Your task to perform on an android device: Search for "duracell triple a" on newegg.com, select the first entry, and add it to the cart. Image 0: 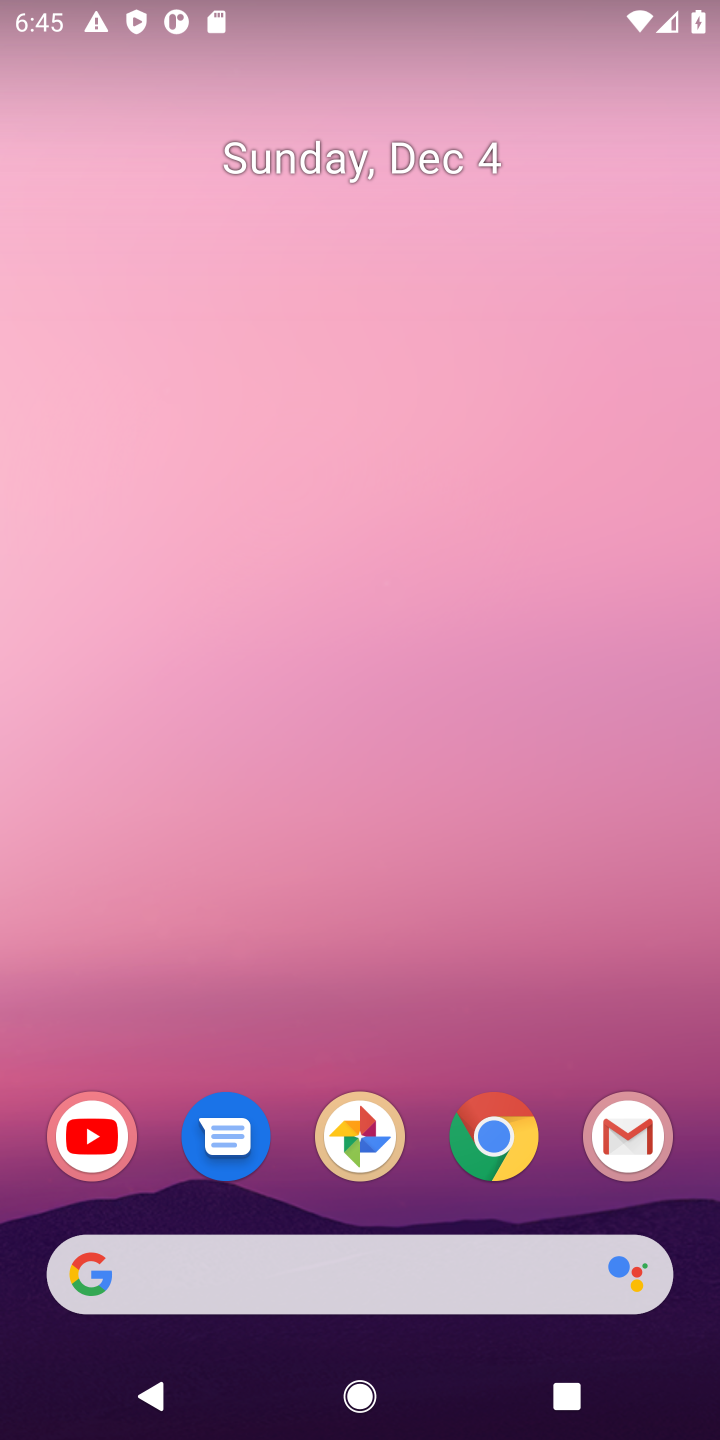
Step 0: click (485, 1143)
Your task to perform on an android device: Search for "duracell triple a" on newegg.com, select the first entry, and add it to the cart. Image 1: 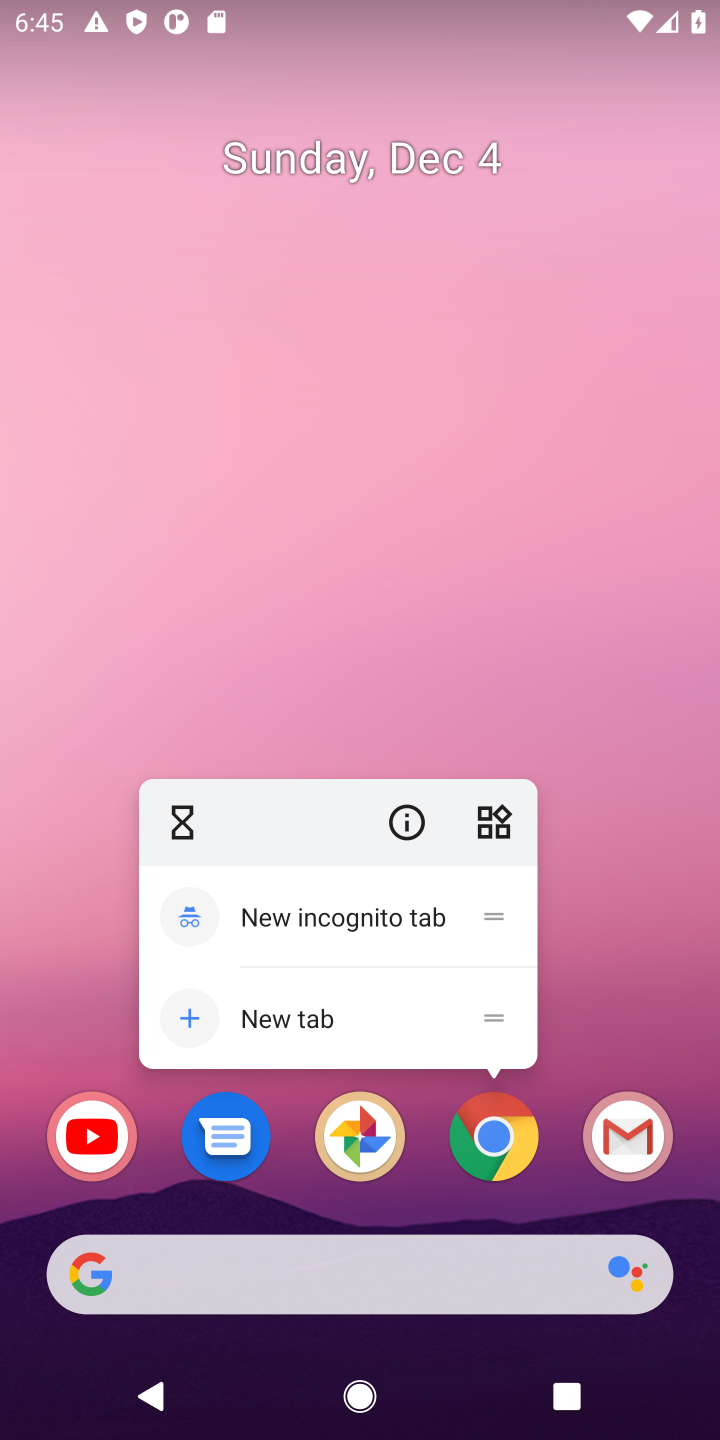
Step 1: click (485, 1143)
Your task to perform on an android device: Search for "duracell triple a" on newegg.com, select the first entry, and add it to the cart. Image 2: 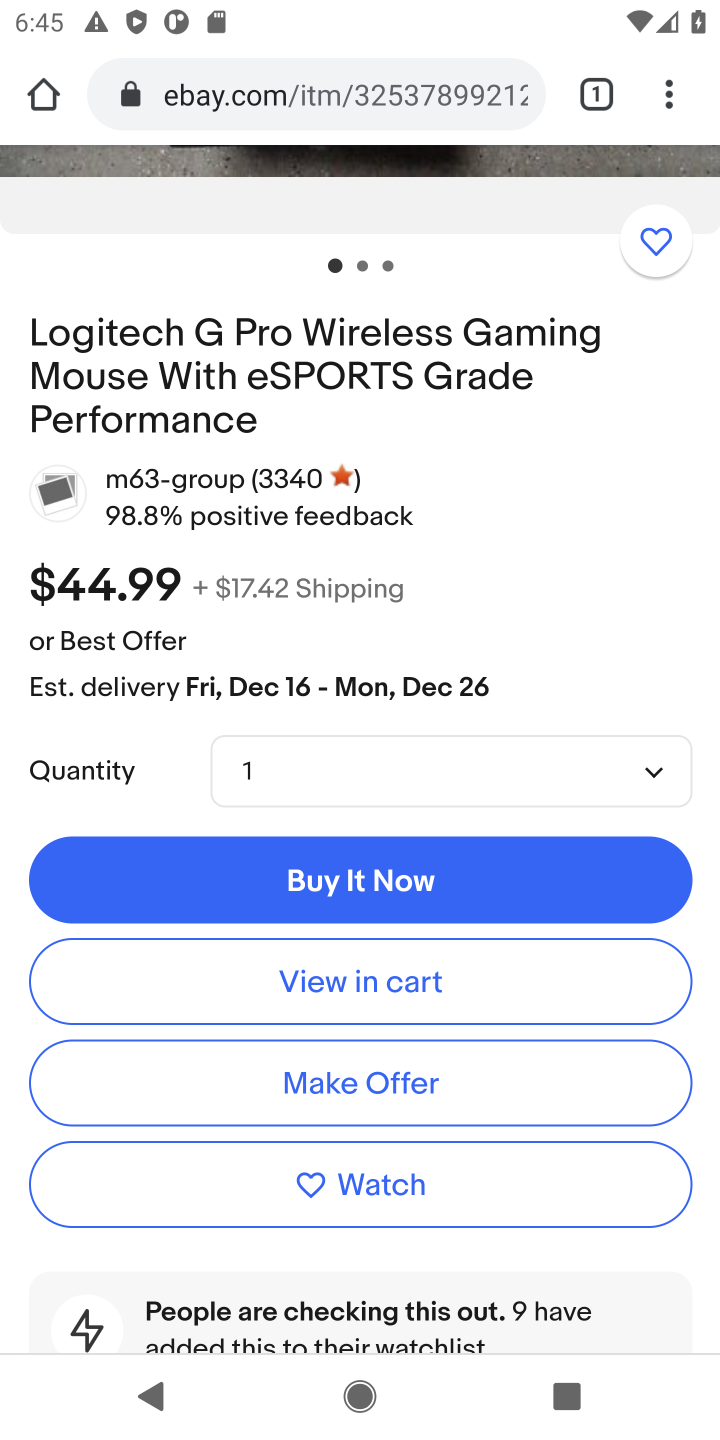
Step 2: click (292, 97)
Your task to perform on an android device: Search for "duracell triple a" on newegg.com, select the first entry, and add it to the cart. Image 3: 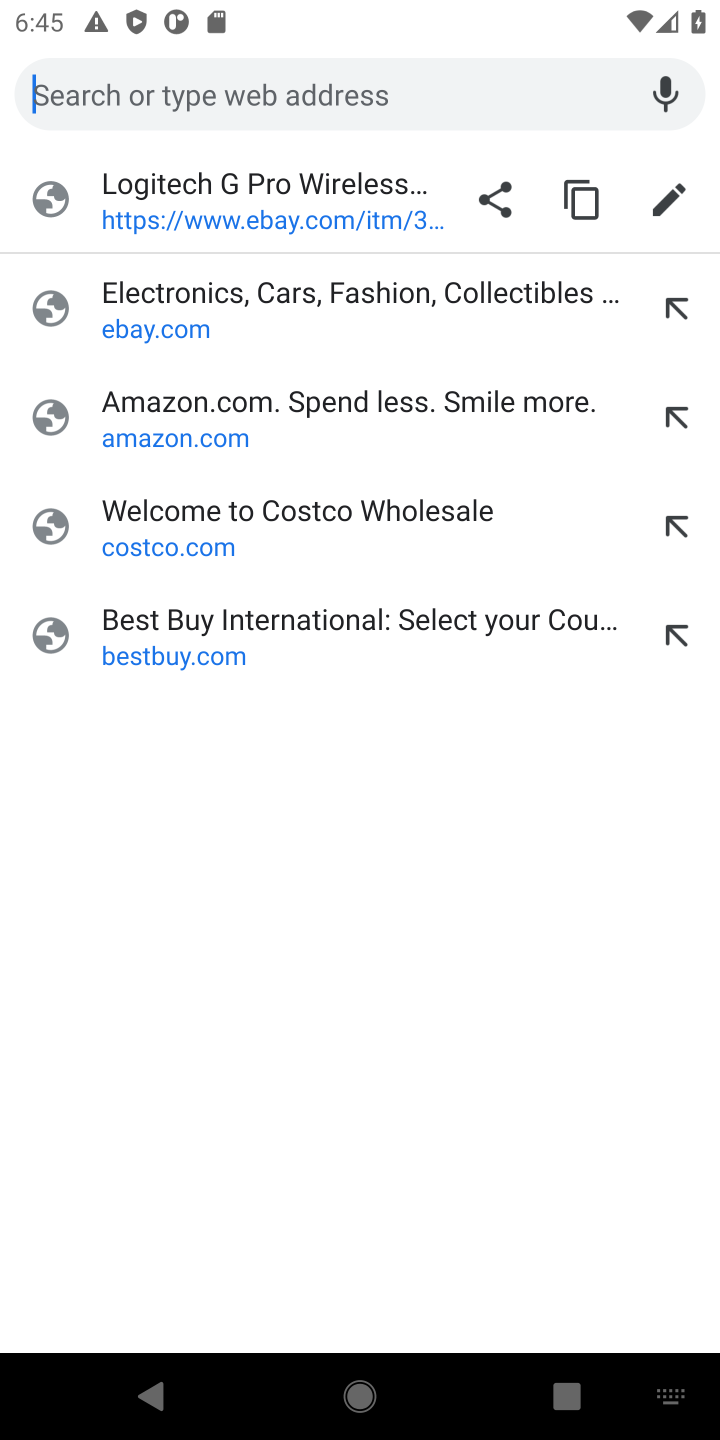
Step 3: type "newegg.com"
Your task to perform on an android device: Search for "duracell triple a" on newegg.com, select the first entry, and add it to the cart. Image 4: 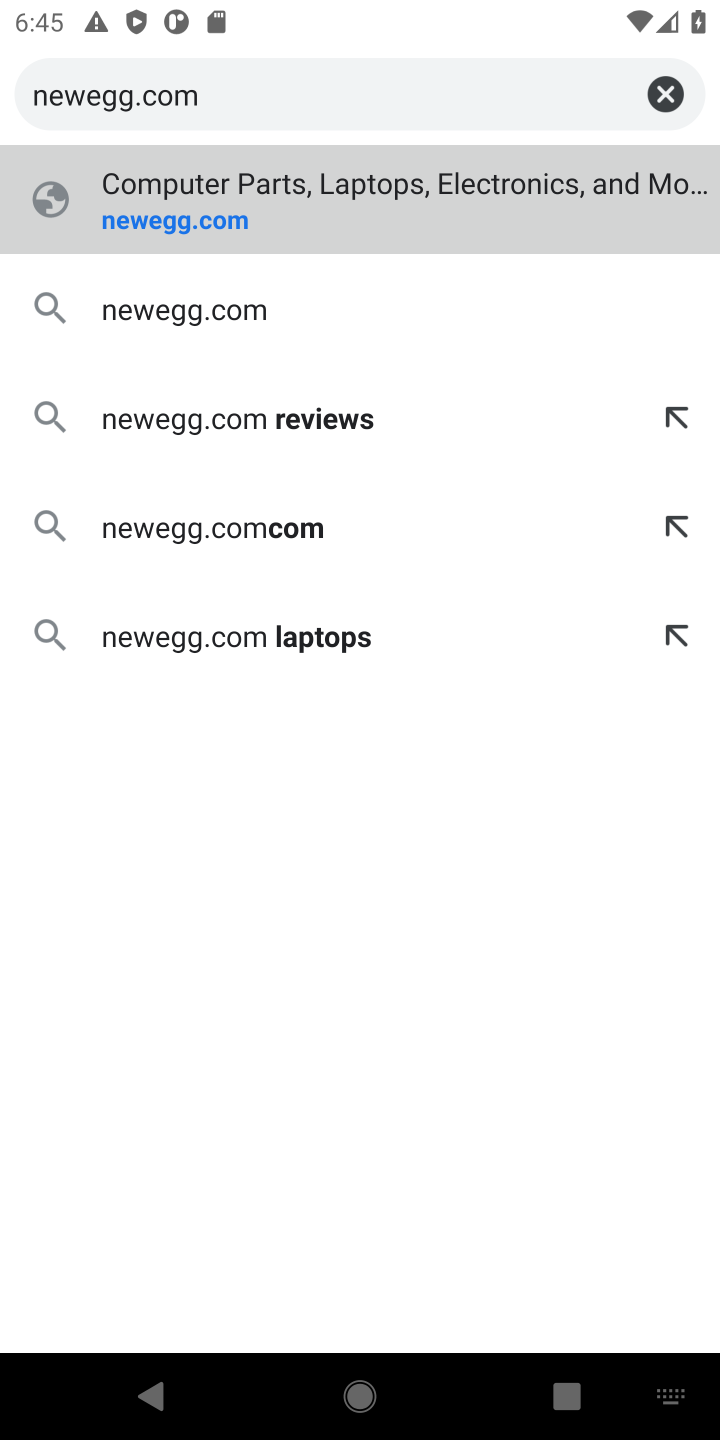
Step 4: click (152, 209)
Your task to perform on an android device: Search for "duracell triple a" on newegg.com, select the first entry, and add it to the cart. Image 5: 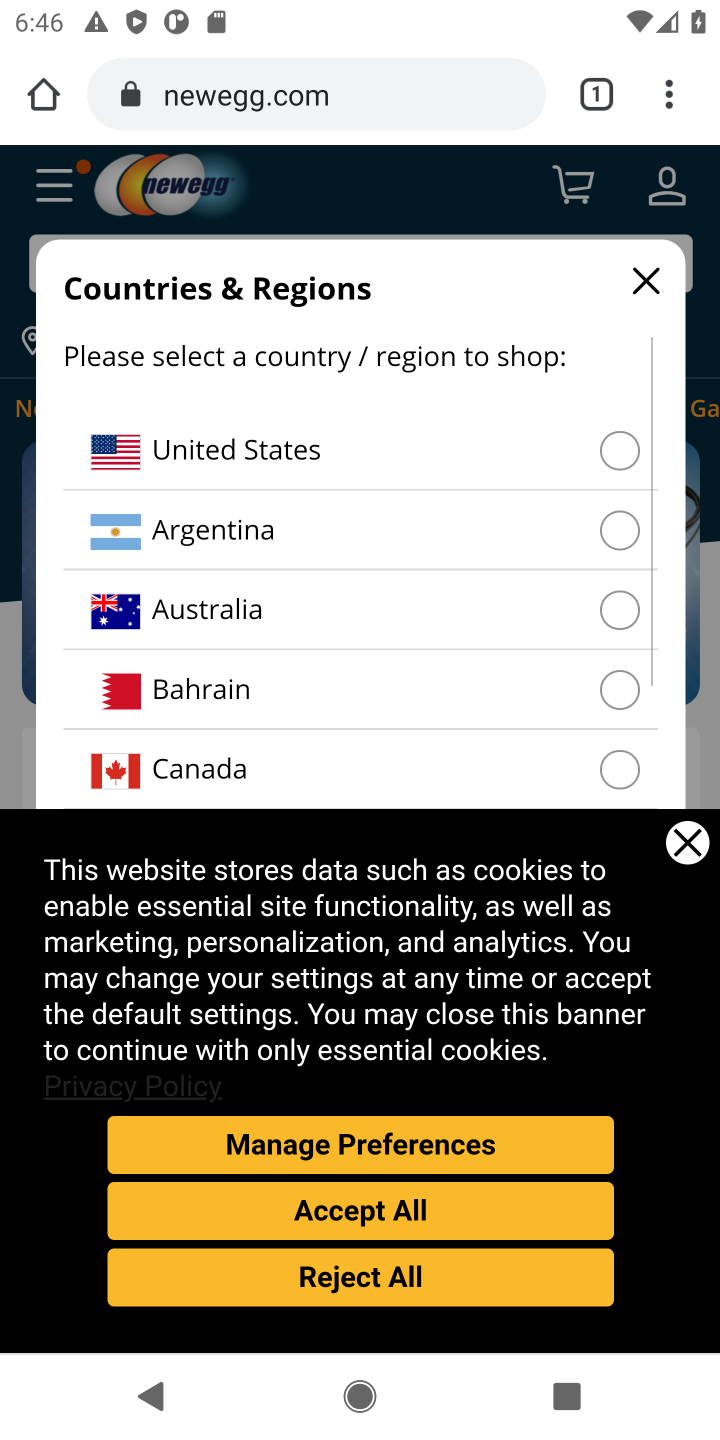
Step 5: click (685, 847)
Your task to perform on an android device: Search for "duracell triple a" on newegg.com, select the first entry, and add it to the cart. Image 6: 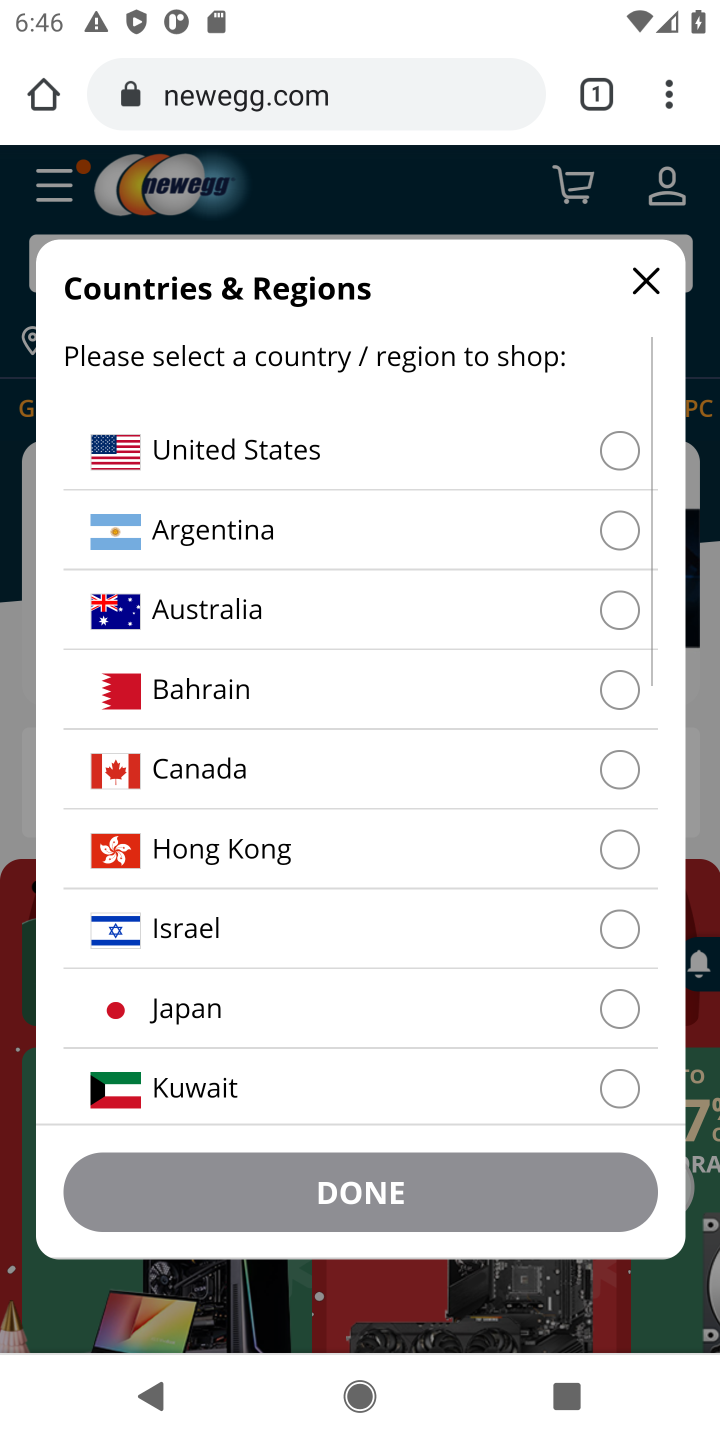
Step 6: click (304, 439)
Your task to perform on an android device: Search for "duracell triple a" on newegg.com, select the first entry, and add it to the cart. Image 7: 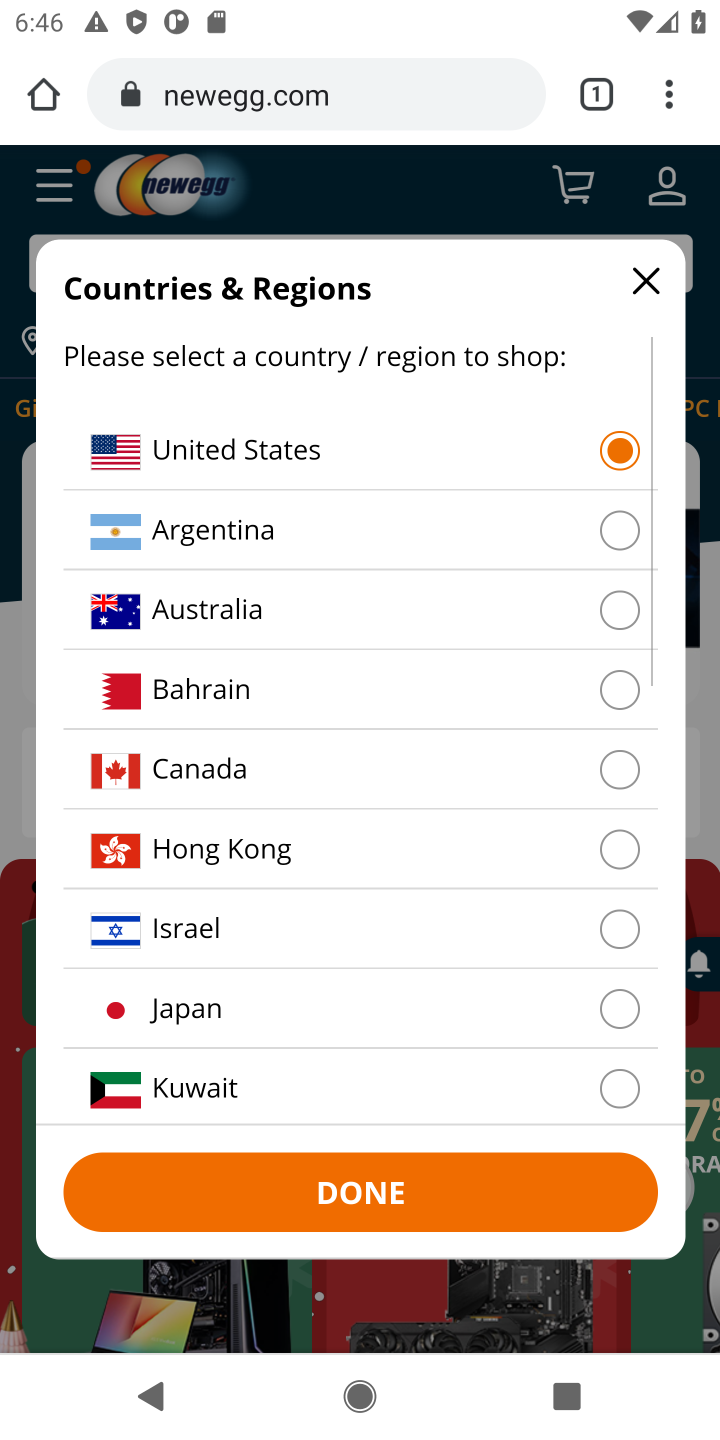
Step 7: click (355, 1219)
Your task to perform on an android device: Search for "duracell triple a" on newegg.com, select the first entry, and add it to the cart. Image 8: 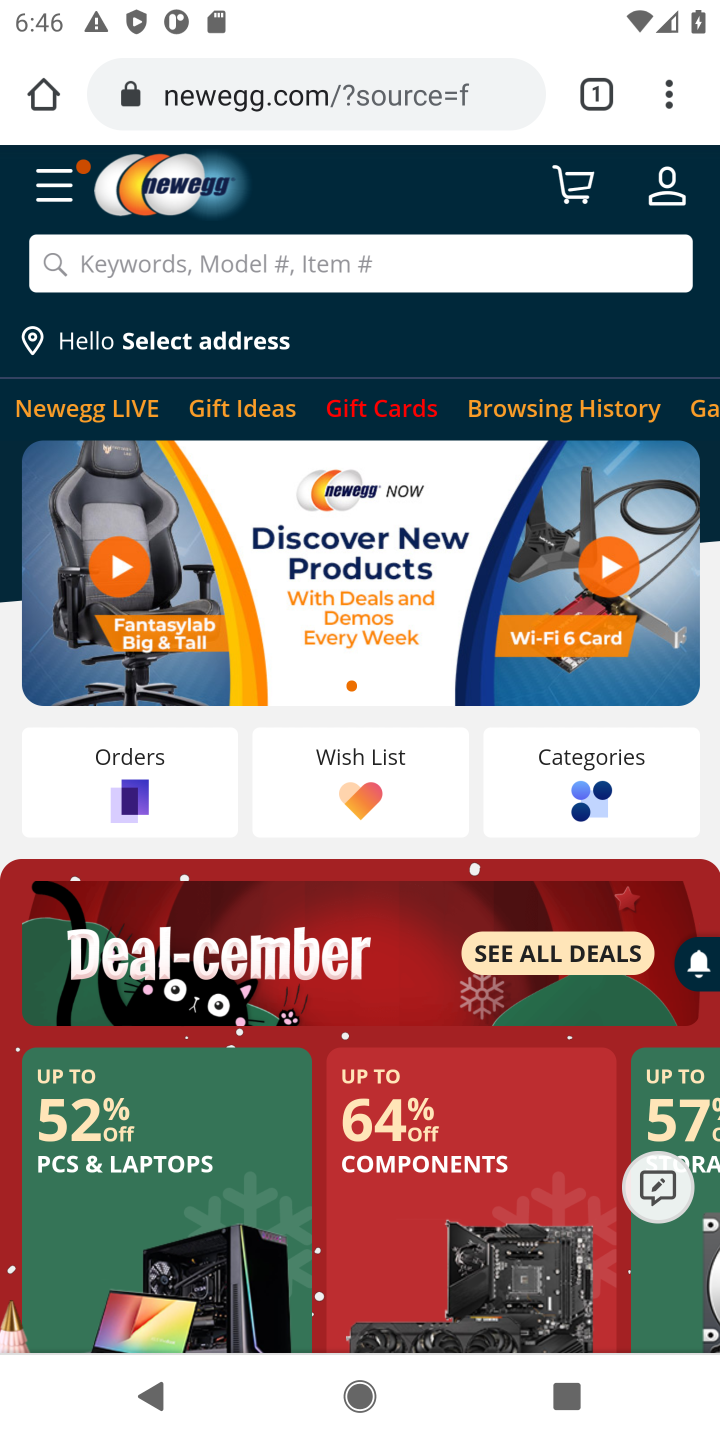
Step 8: click (124, 280)
Your task to perform on an android device: Search for "duracell triple a" on newegg.com, select the first entry, and add it to the cart. Image 9: 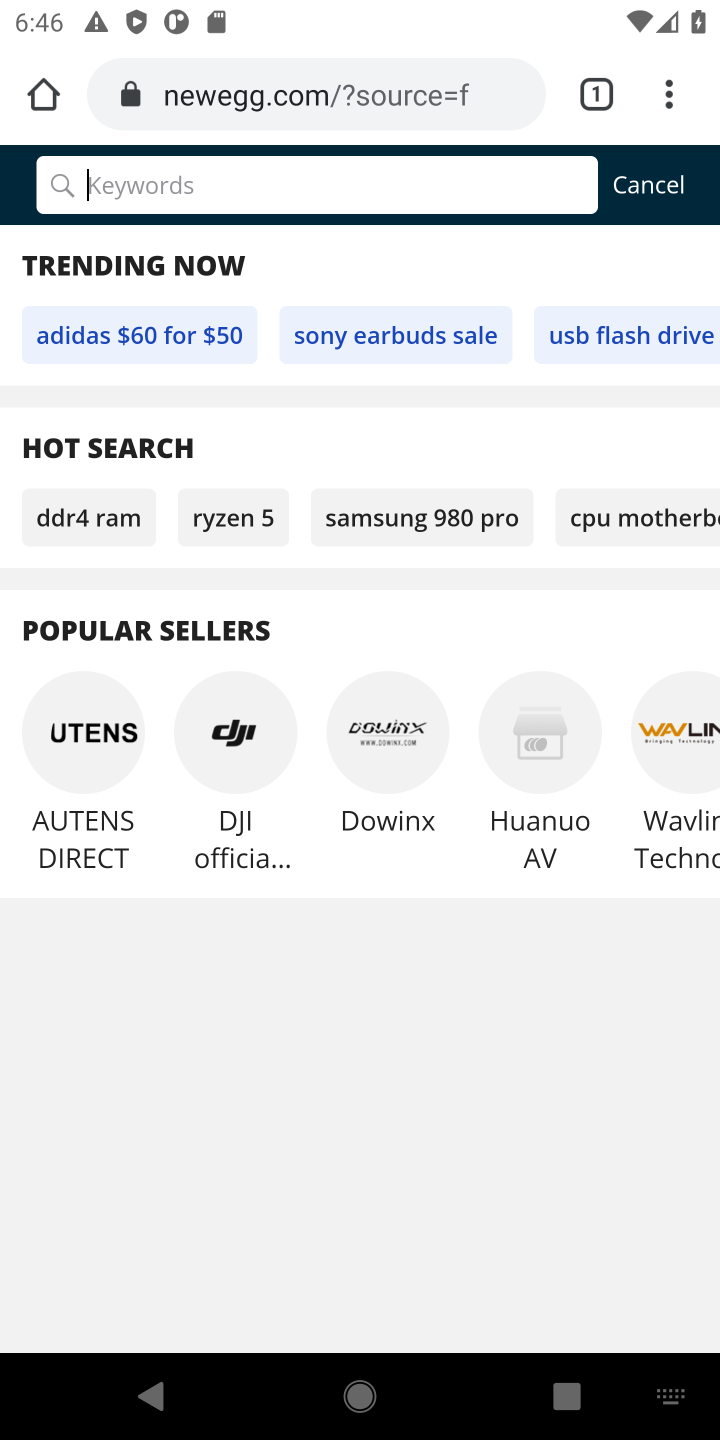
Step 9: type "duracell triple a"
Your task to perform on an android device: Search for "duracell triple a" on newegg.com, select the first entry, and add it to the cart. Image 10: 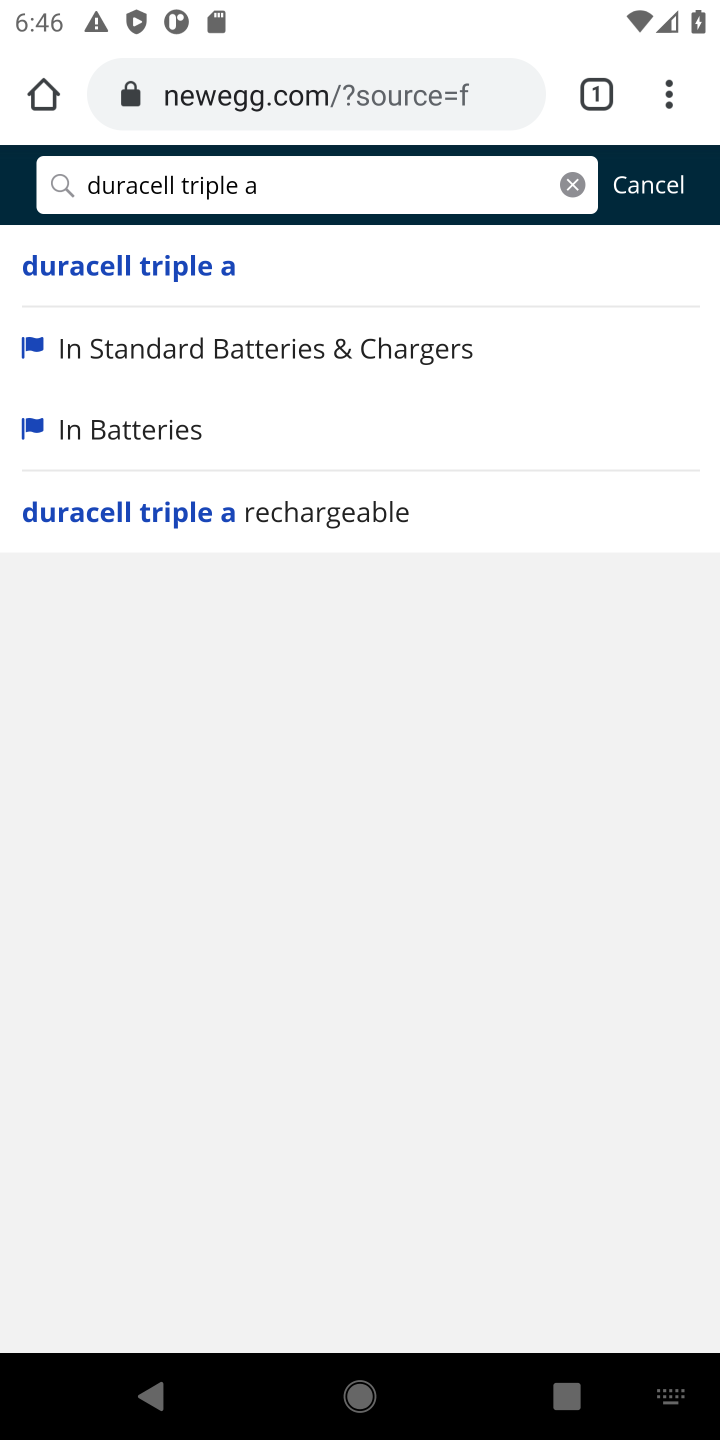
Step 10: click (180, 270)
Your task to perform on an android device: Search for "duracell triple a" on newegg.com, select the first entry, and add it to the cart. Image 11: 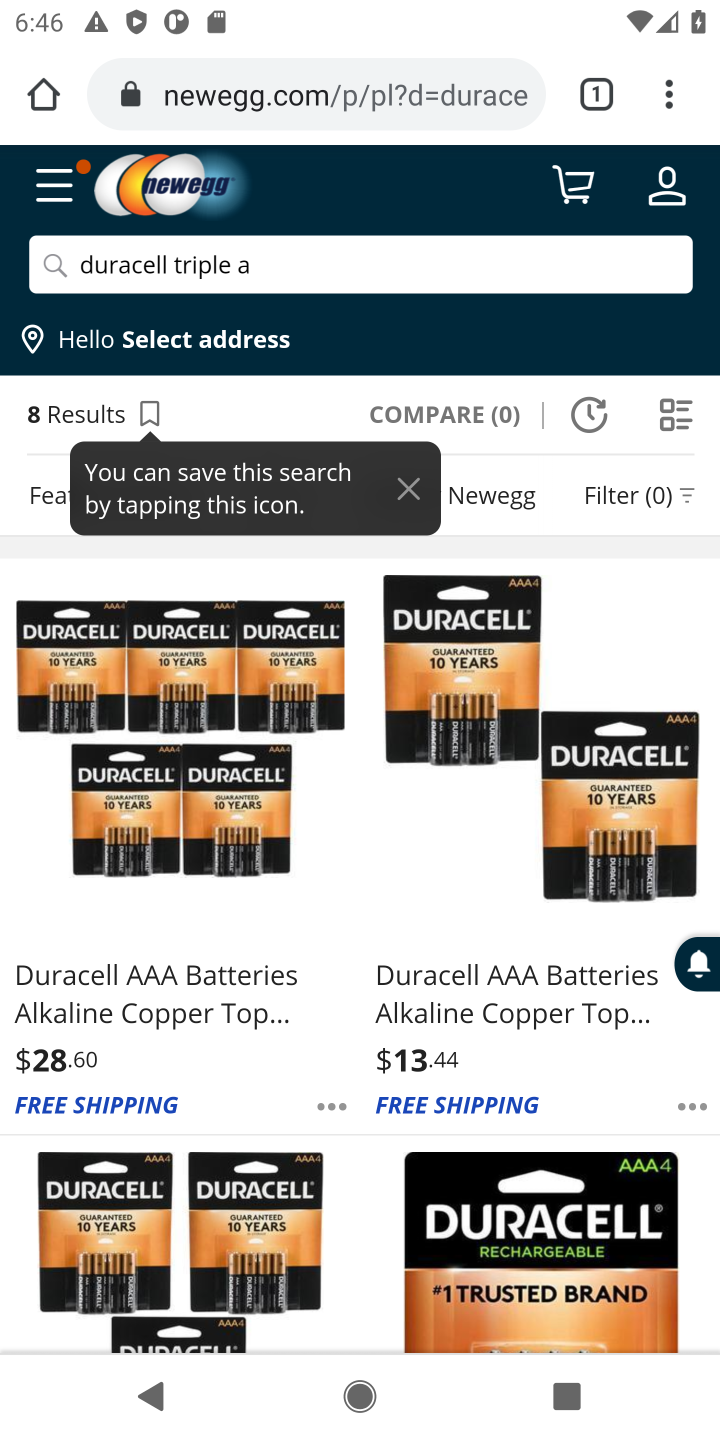
Step 11: click (90, 983)
Your task to perform on an android device: Search for "duracell triple a" on newegg.com, select the first entry, and add it to the cart. Image 12: 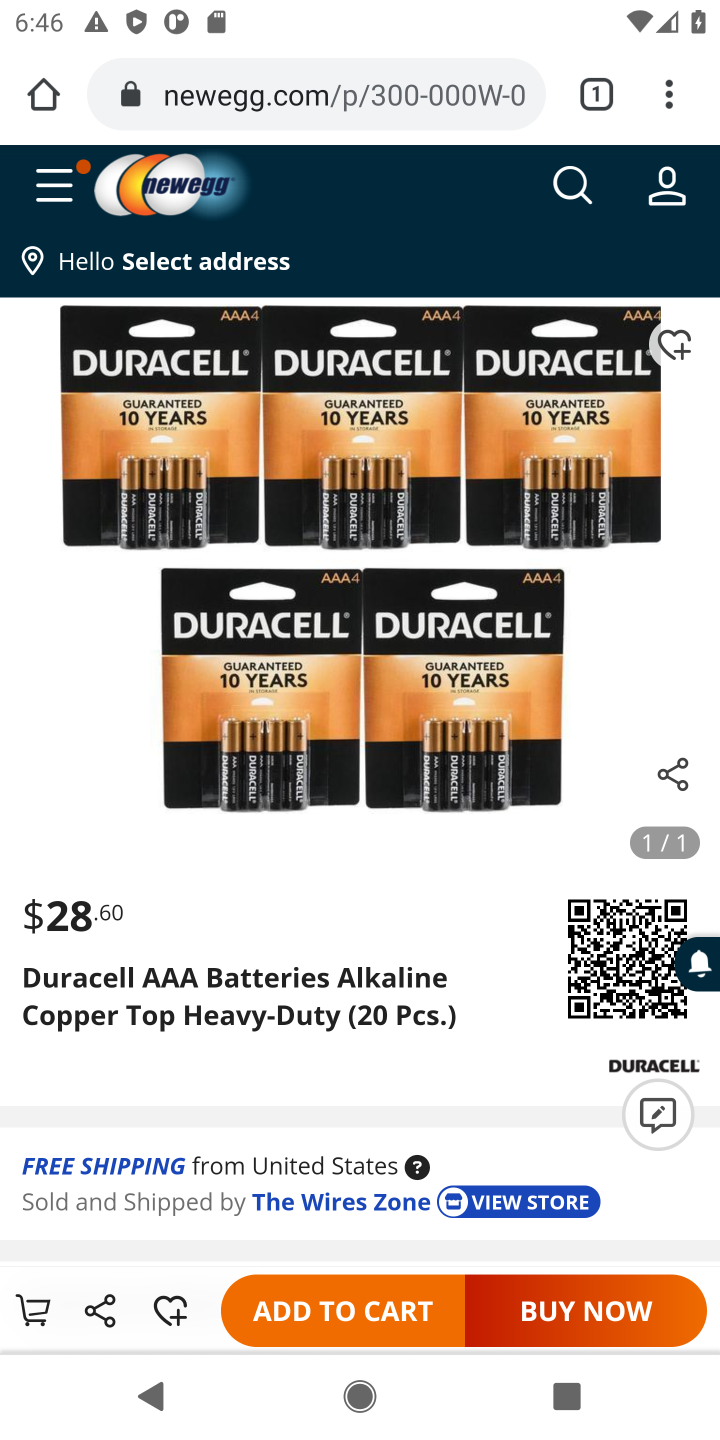
Step 12: click (345, 1309)
Your task to perform on an android device: Search for "duracell triple a" on newegg.com, select the first entry, and add it to the cart. Image 13: 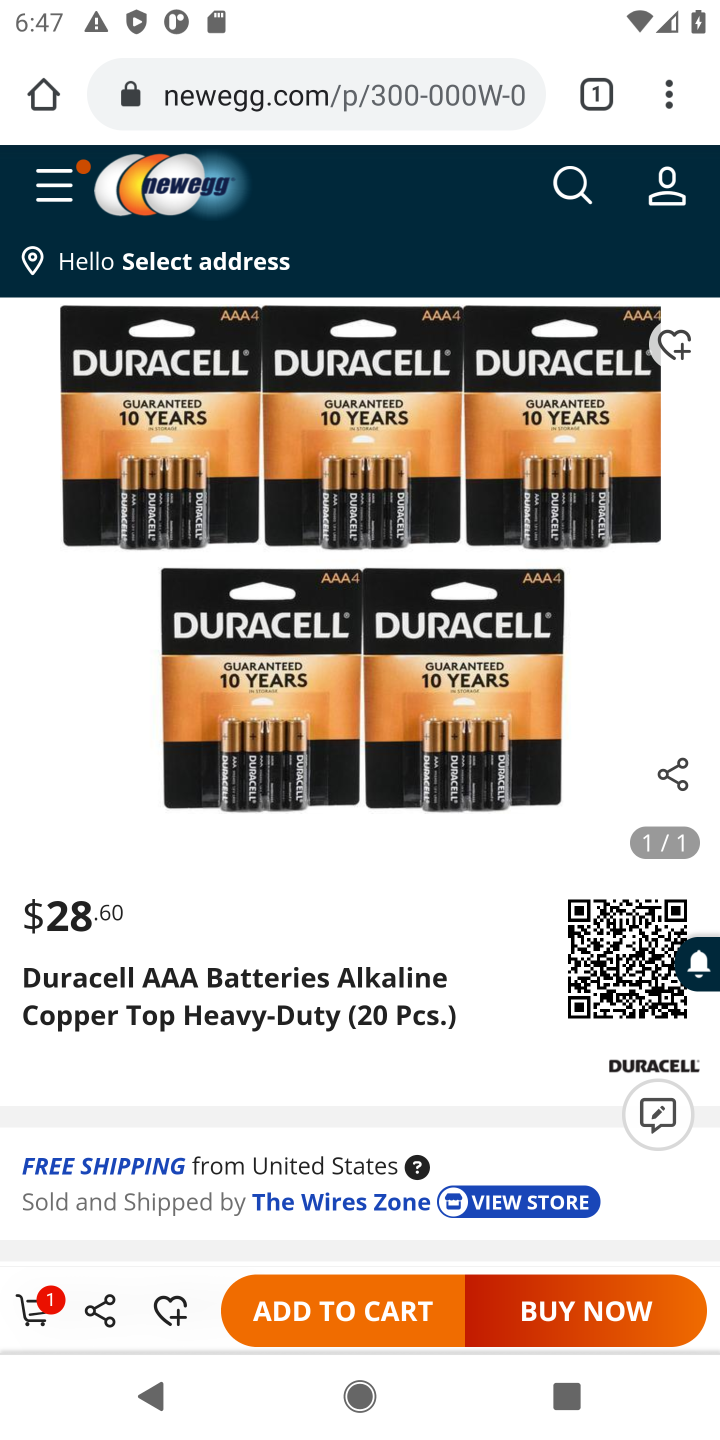
Step 13: task complete